Your task to perform on an android device: Go to Yahoo.com Image 0: 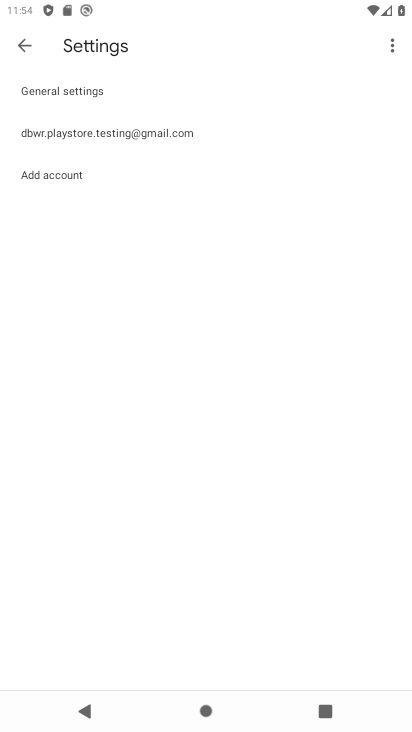
Step 0: press home button
Your task to perform on an android device: Go to Yahoo.com Image 1: 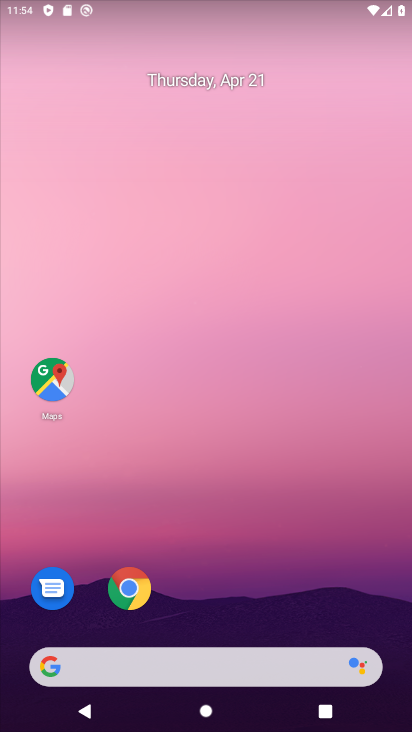
Step 1: click (130, 664)
Your task to perform on an android device: Go to Yahoo.com Image 2: 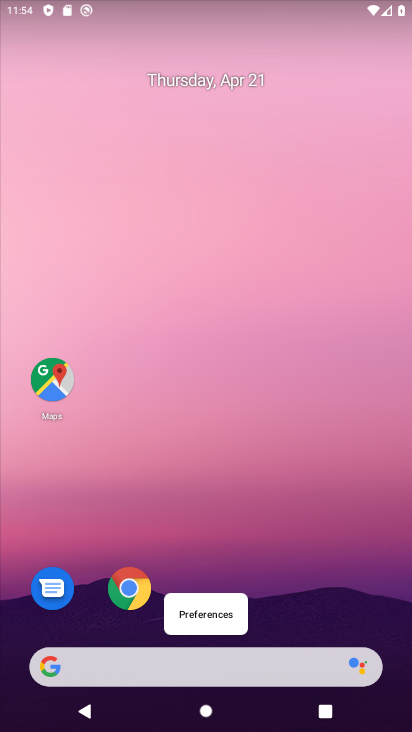
Step 2: click (130, 665)
Your task to perform on an android device: Go to Yahoo.com Image 3: 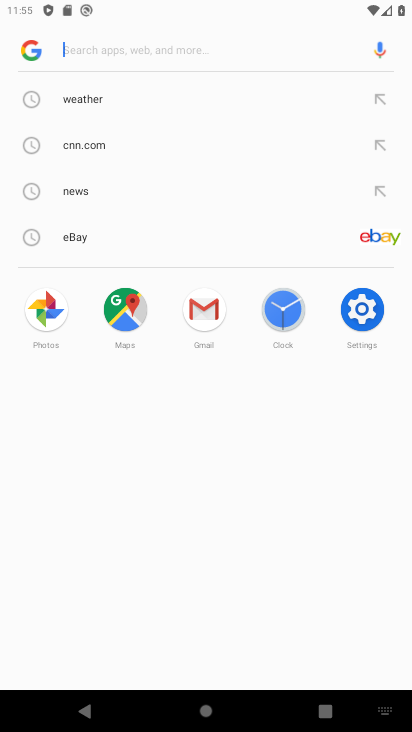
Step 3: type "yahoo.com"
Your task to perform on an android device: Go to Yahoo.com Image 4: 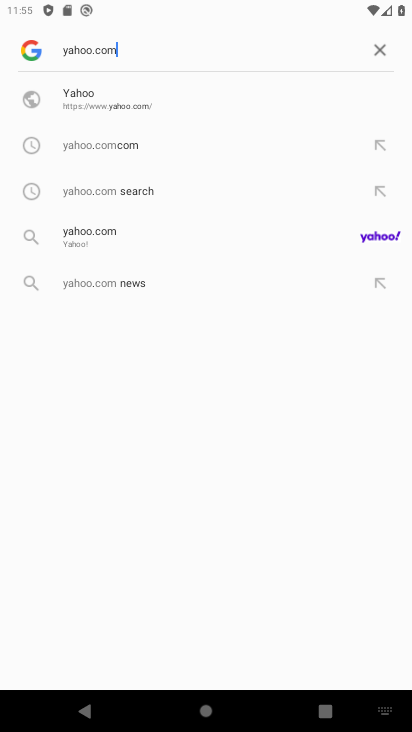
Step 4: click (190, 227)
Your task to perform on an android device: Go to Yahoo.com Image 5: 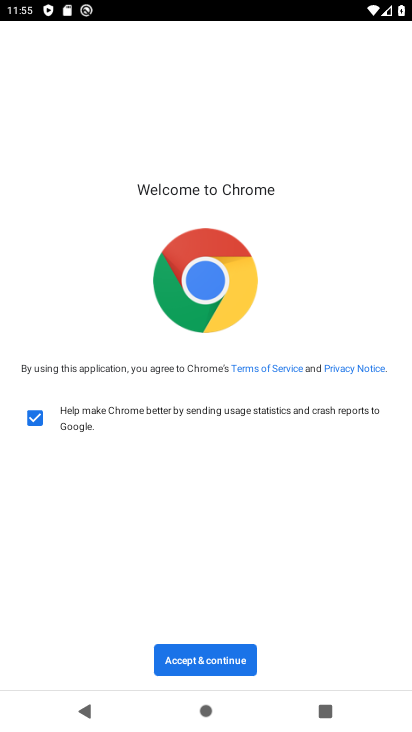
Step 5: click (232, 659)
Your task to perform on an android device: Go to Yahoo.com Image 6: 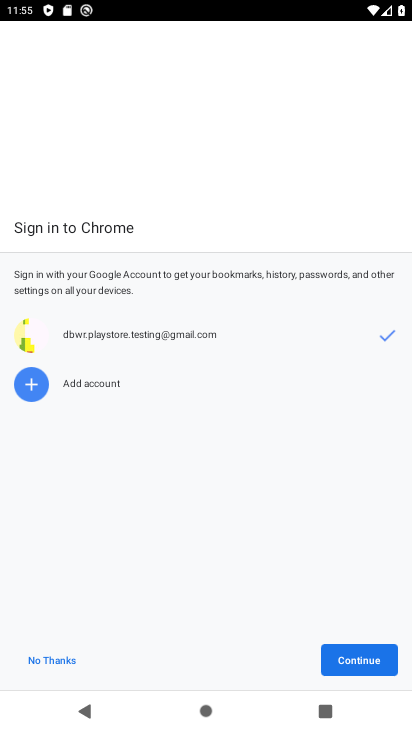
Step 6: click (389, 662)
Your task to perform on an android device: Go to Yahoo.com Image 7: 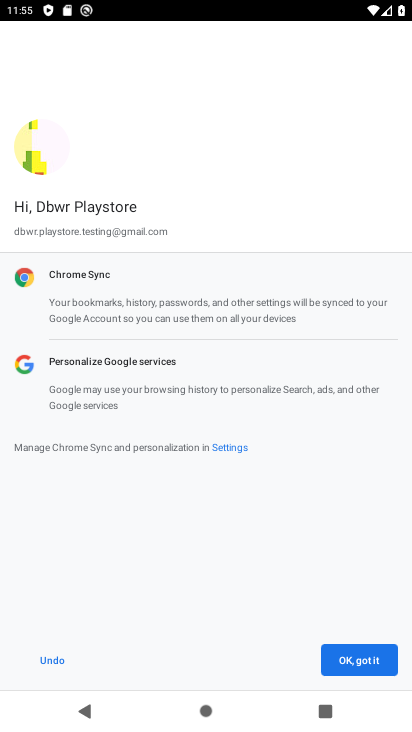
Step 7: click (389, 662)
Your task to perform on an android device: Go to Yahoo.com Image 8: 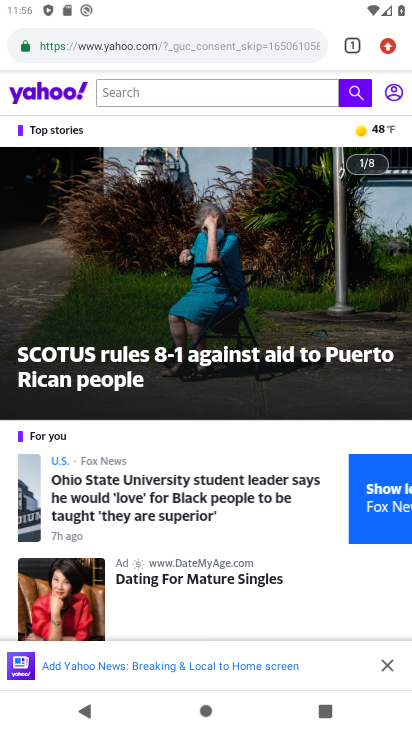
Step 8: task complete